Your task to perform on an android device: Empty the shopping cart on amazon.com. Image 0: 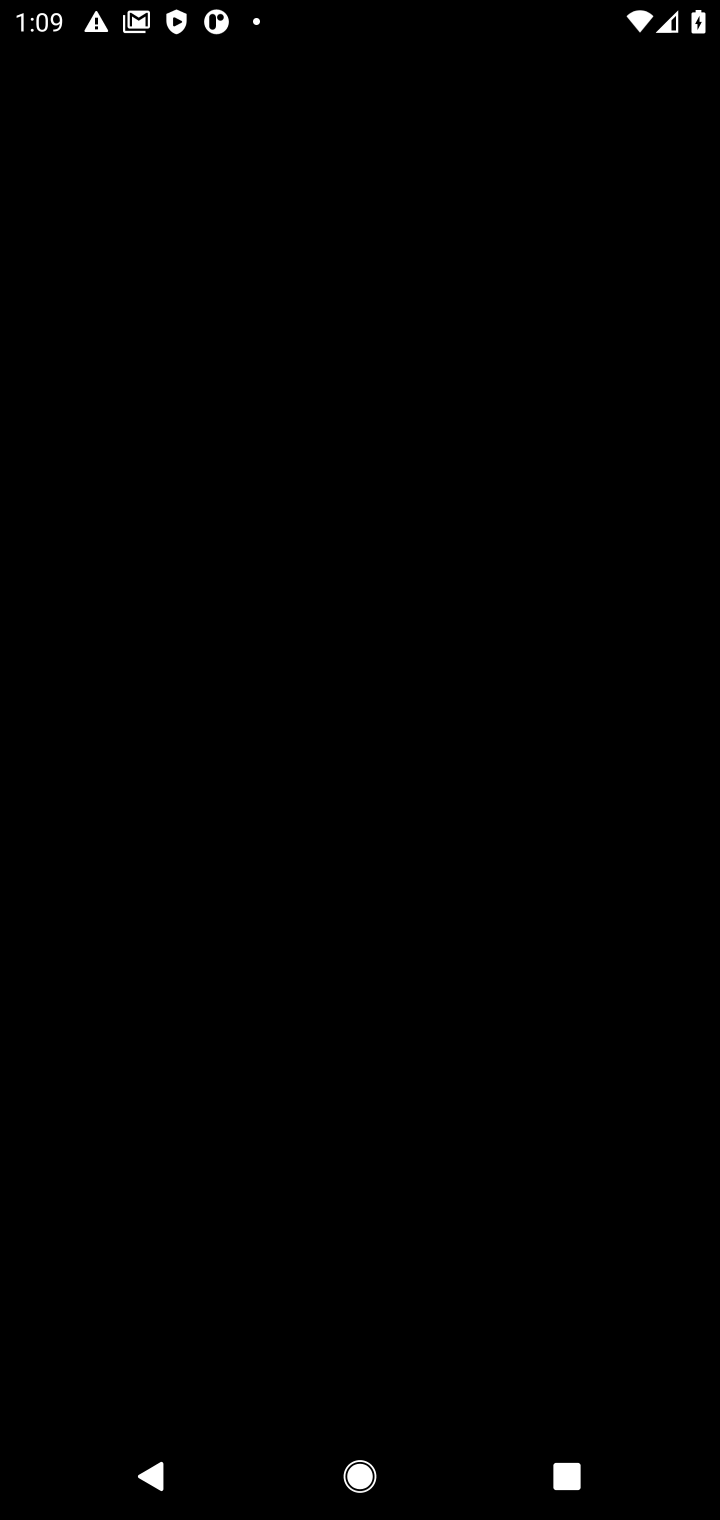
Step 0: task complete